Your task to perform on an android device: Go to Yahoo.com Image 0: 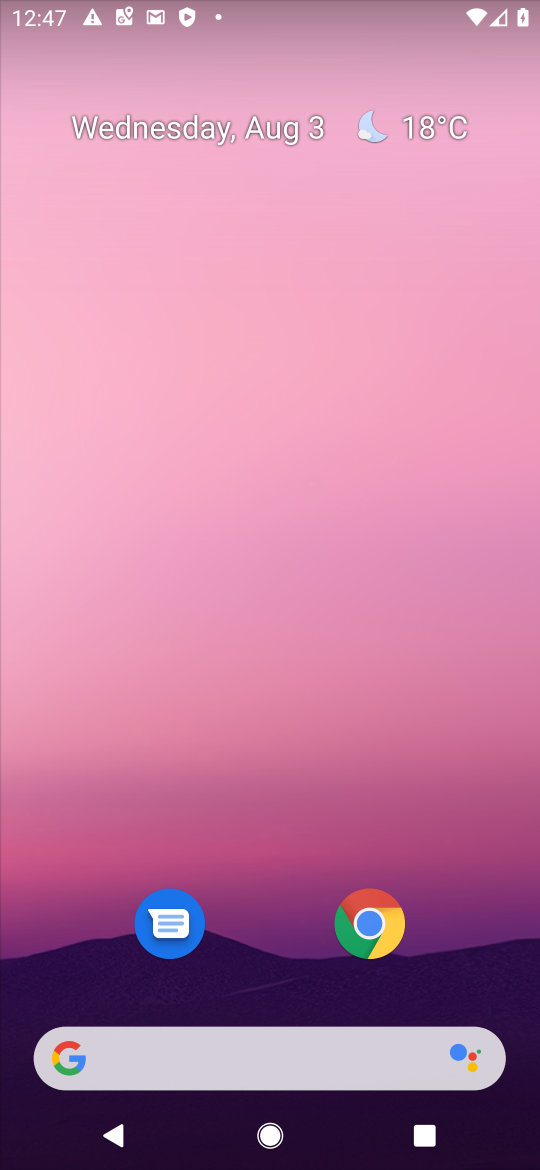
Step 0: drag from (267, 892) to (368, 337)
Your task to perform on an android device: Go to Yahoo.com Image 1: 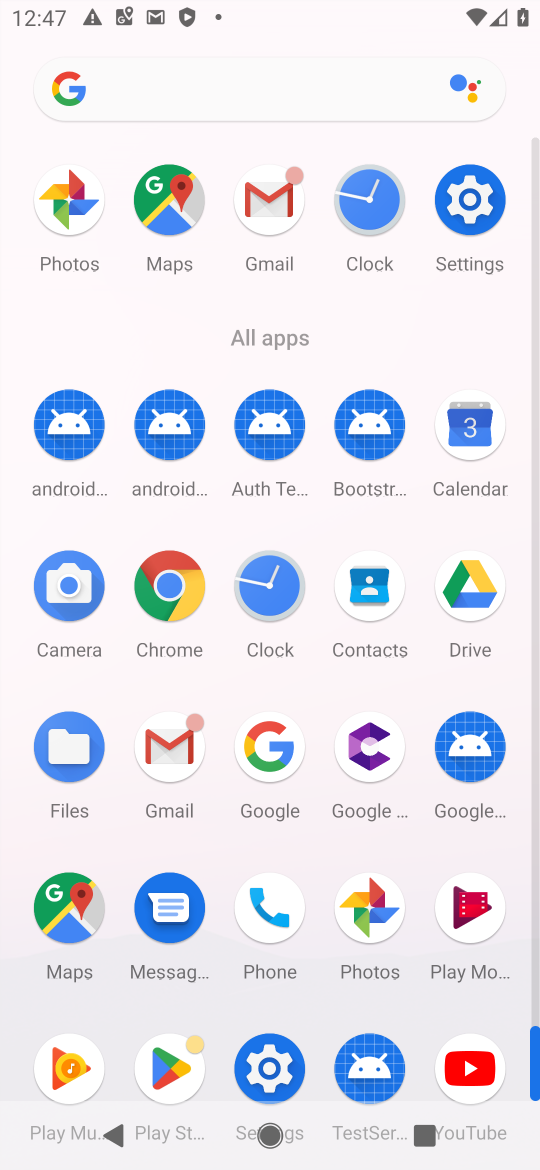
Step 1: drag from (307, 952) to (276, 232)
Your task to perform on an android device: Go to Yahoo.com Image 2: 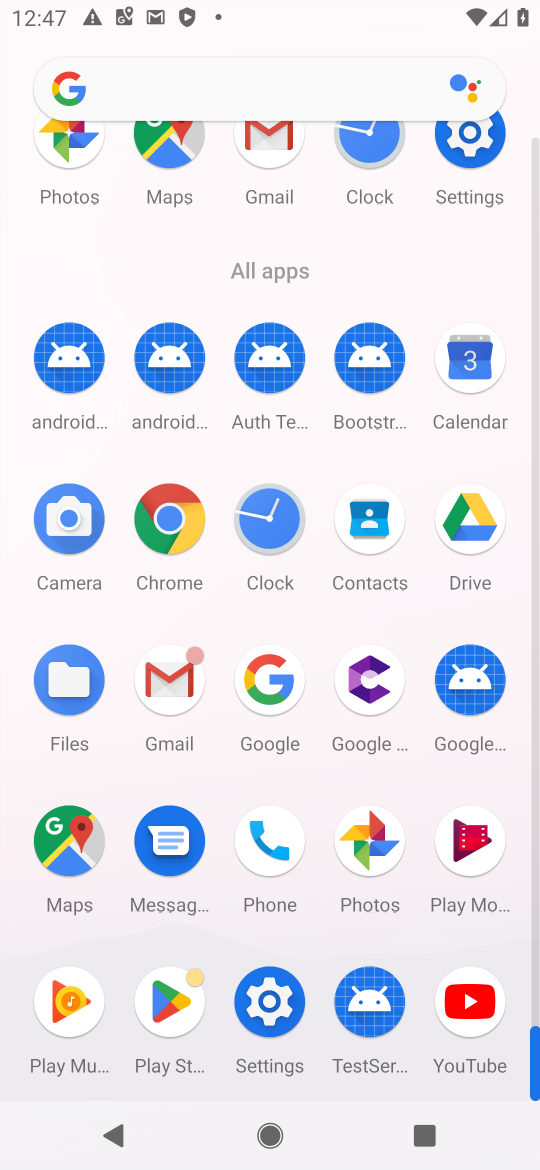
Step 2: click (183, 81)
Your task to perform on an android device: Go to Yahoo.com Image 3: 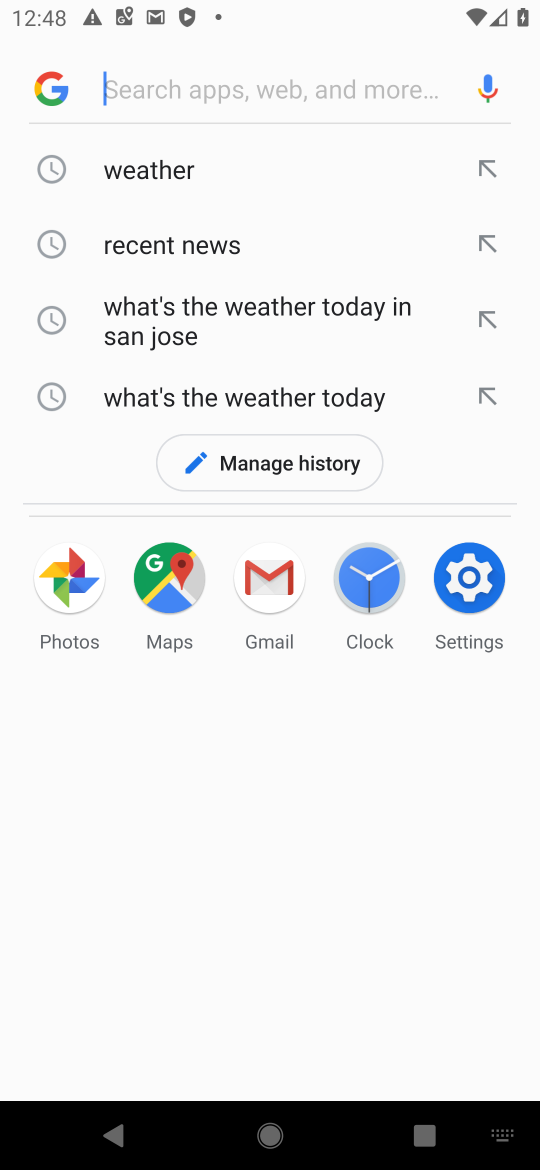
Step 3: type "Yahoo.com"
Your task to perform on an android device: Go to Yahoo.com Image 4: 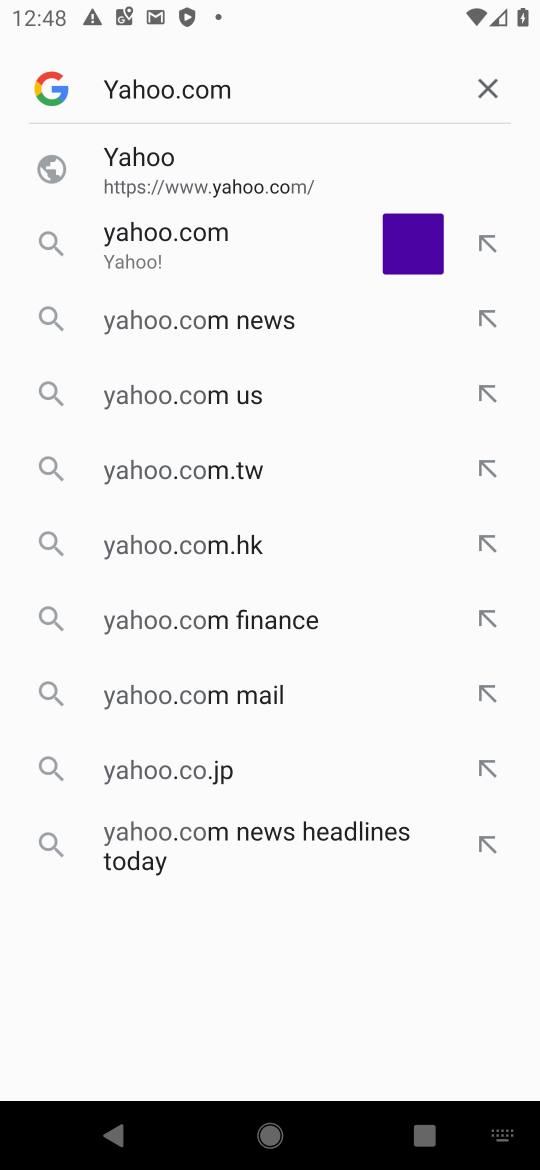
Step 4: type ""
Your task to perform on an android device: Go to Yahoo.com Image 5: 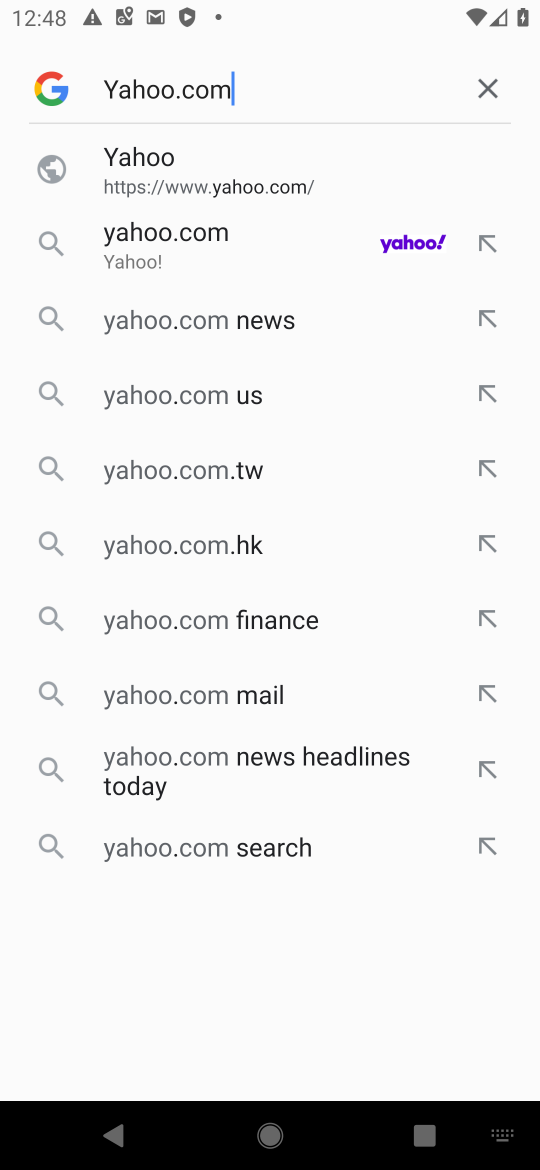
Step 5: click (140, 160)
Your task to perform on an android device: Go to Yahoo.com Image 6: 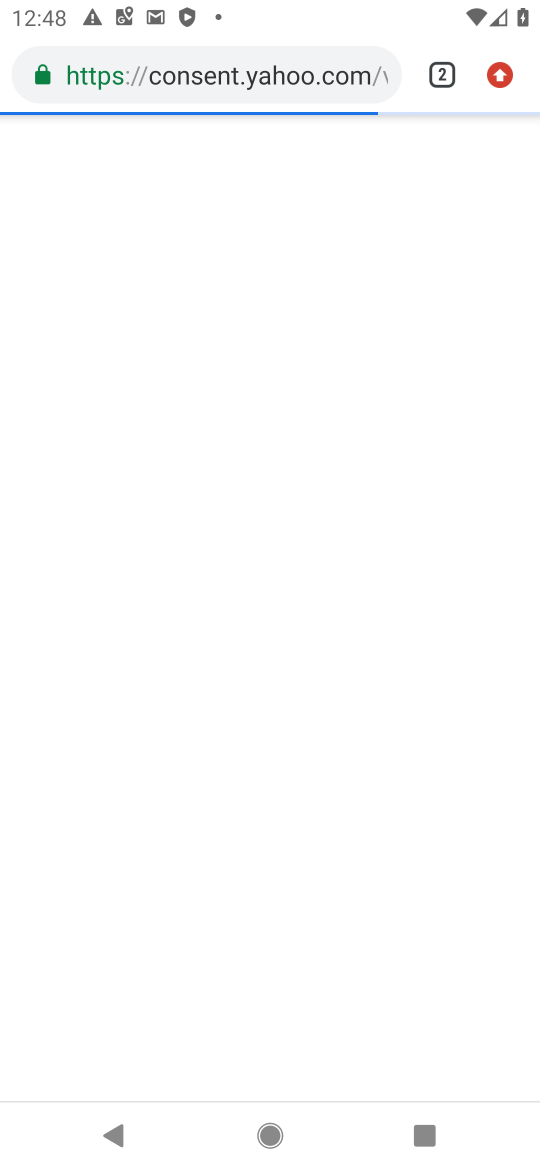
Step 6: task complete